Your task to perform on an android device: Check the news Image 0: 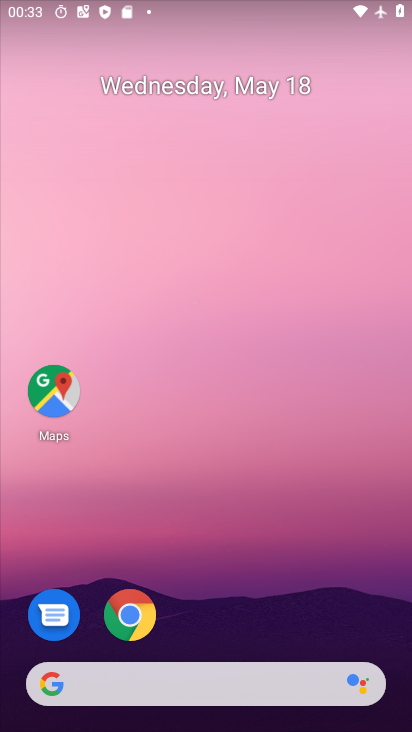
Step 0: drag from (227, 646) to (230, 245)
Your task to perform on an android device: Check the news Image 1: 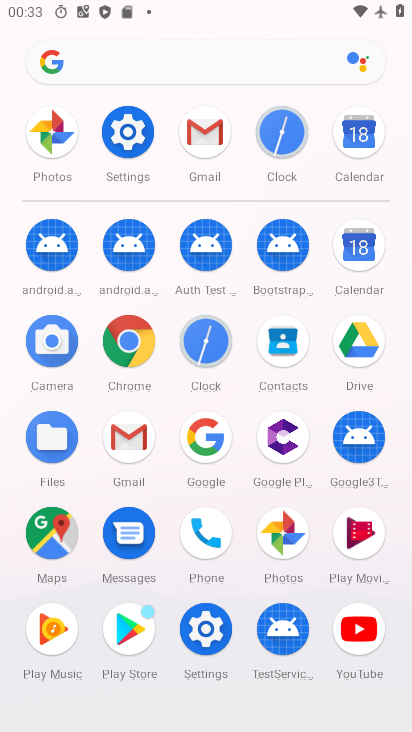
Step 1: click (188, 440)
Your task to perform on an android device: Check the news Image 2: 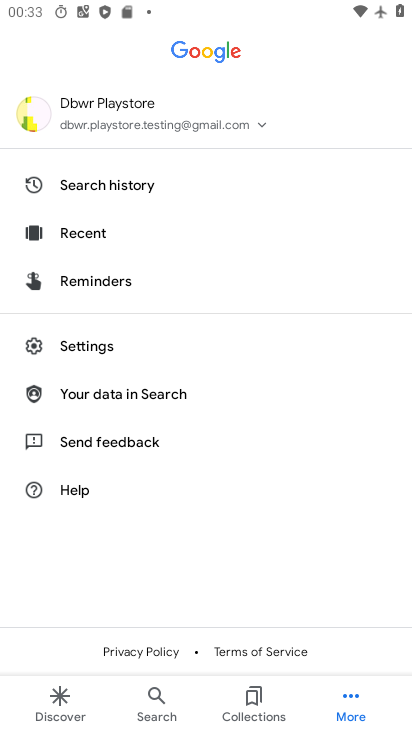
Step 2: press back button
Your task to perform on an android device: Check the news Image 3: 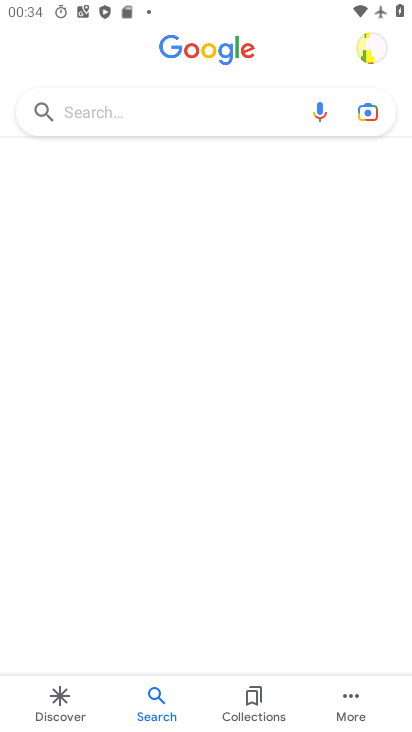
Step 3: click (150, 124)
Your task to perform on an android device: Check the news Image 4: 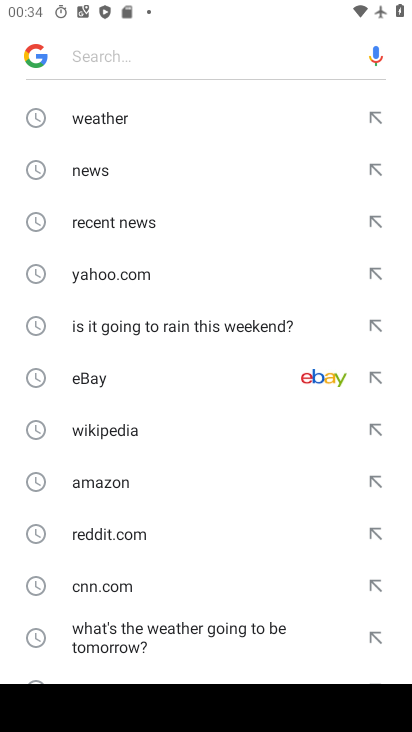
Step 4: click (98, 179)
Your task to perform on an android device: Check the news Image 5: 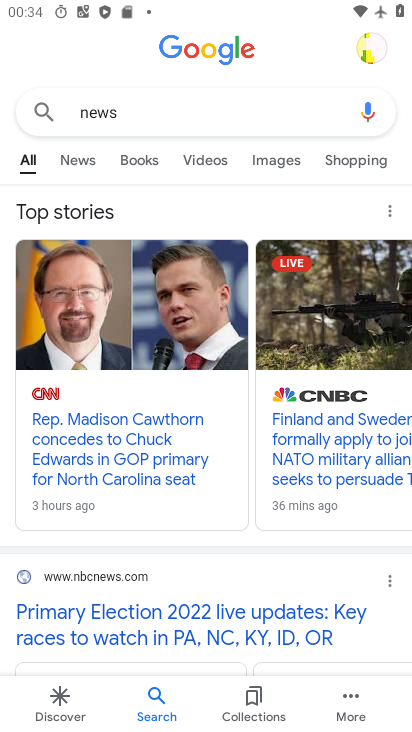
Step 5: task complete